Your task to perform on an android device: move a message to another label in the gmail app Image 0: 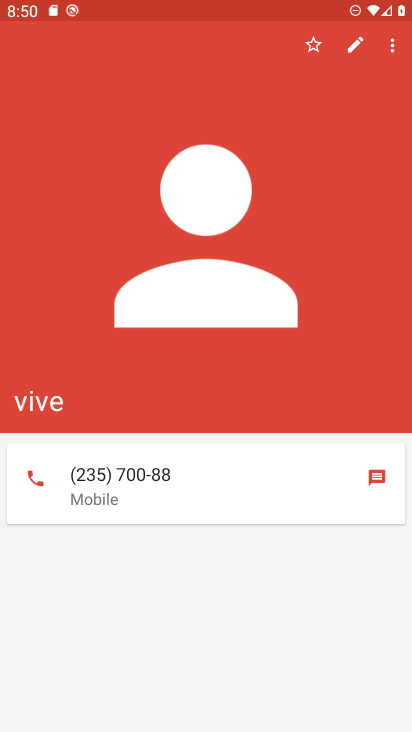
Step 0: press home button
Your task to perform on an android device: move a message to another label in the gmail app Image 1: 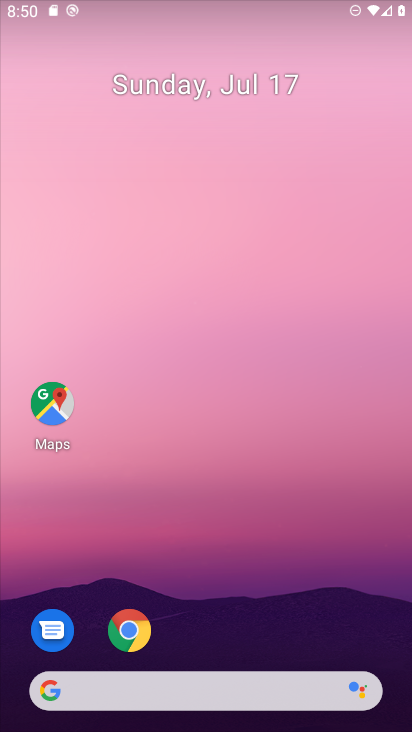
Step 1: drag from (245, 638) to (242, 201)
Your task to perform on an android device: move a message to another label in the gmail app Image 2: 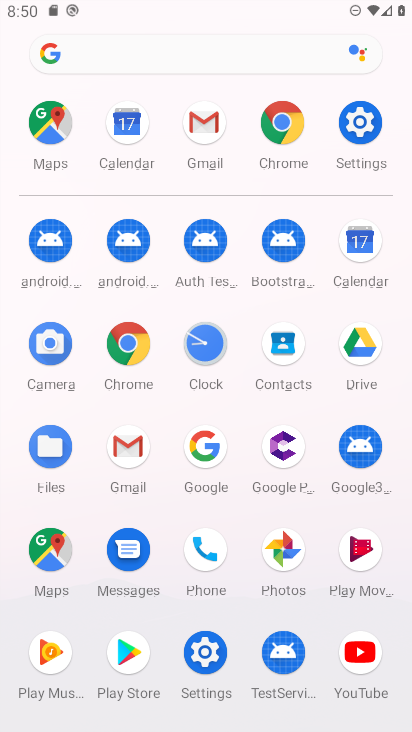
Step 2: click (133, 436)
Your task to perform on an android device: move a message to another label in the gmail app Image 3: 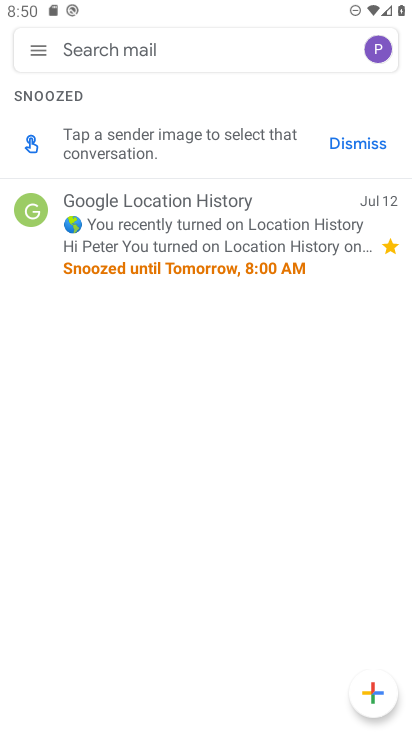
Step 3: click (28, 51)
Your task to perform on an android device: move a message to another label in the gmail app Image 4: 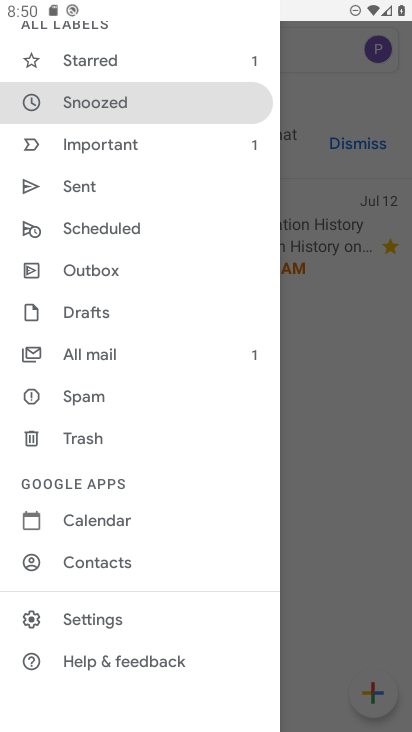
Step 4: click (360, 380)
Your task to perform on an android device: move a message to another label in the gmail app Image 5: 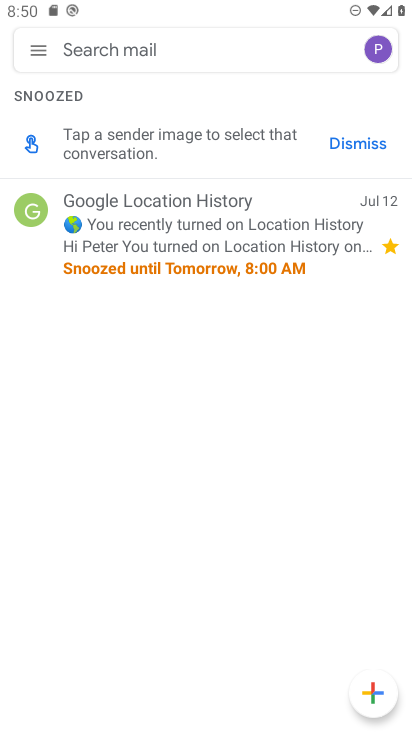
Step 5: click (218, 247)
Your task to perform on an android device: move a message to another label in the gmail app Image 6: 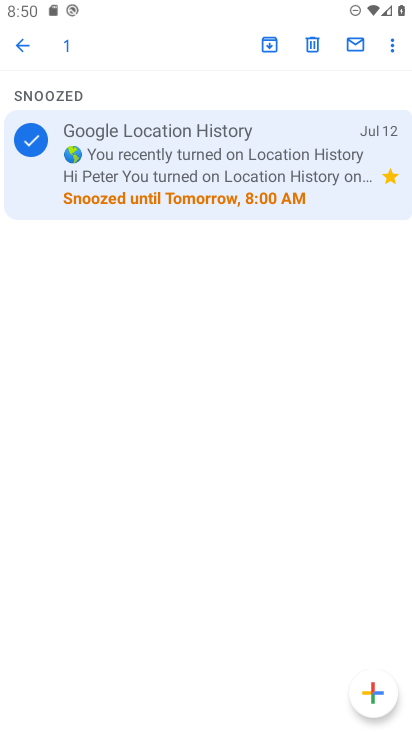
Step 6: click (394, 42)
Your task to perform on an android device: move a message to another label in the gmail app Image 7: 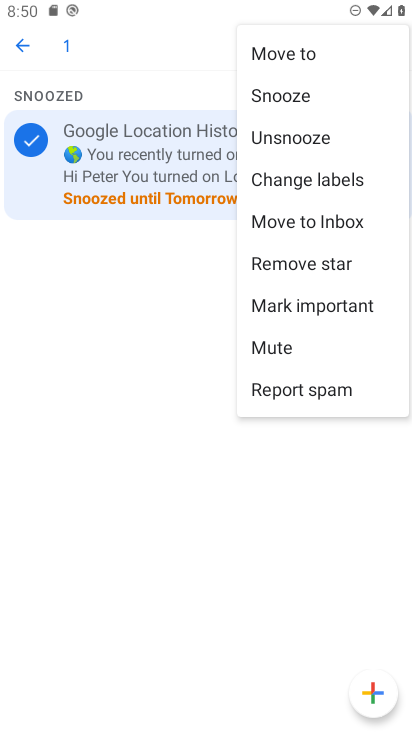
Step 7: click (292, 54)
Your task to perform on an android device: move a message to another label in the gmail app Image 8: 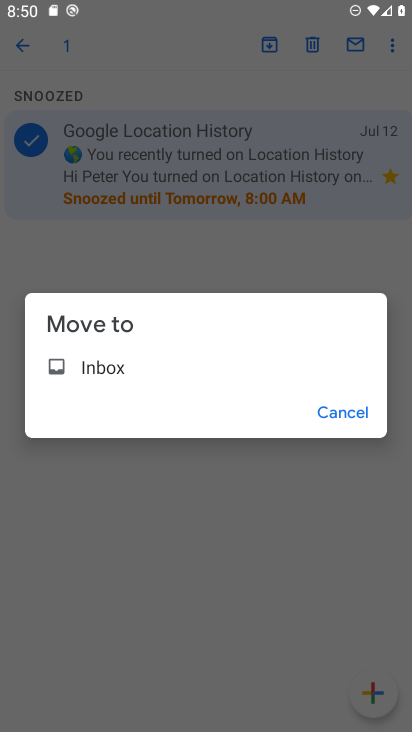
Step 8: click (129, 370)
Your task to perform on an android device: move a message to another label in the gmail app Image 9: 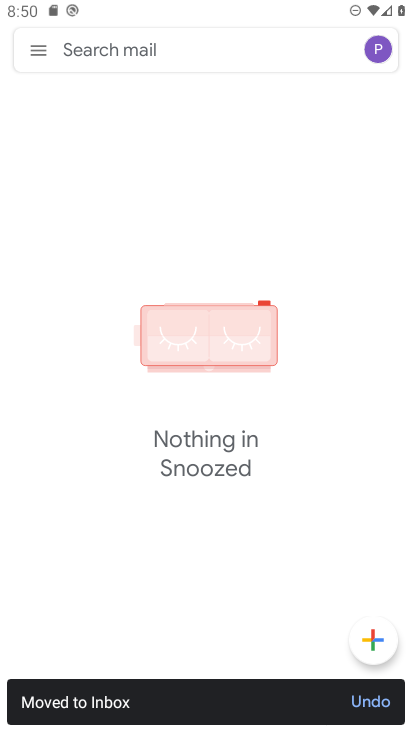
Step 9: click (101, 698)
Your task to perform on an android device: move a message to another label in the gmail app Image 10: 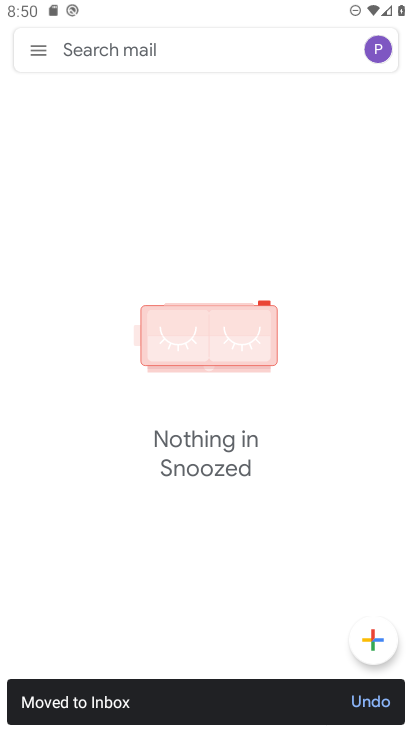
Step 10: task complete